Your task to perform on an android device: visit the assistant section in the google photos Image 0: 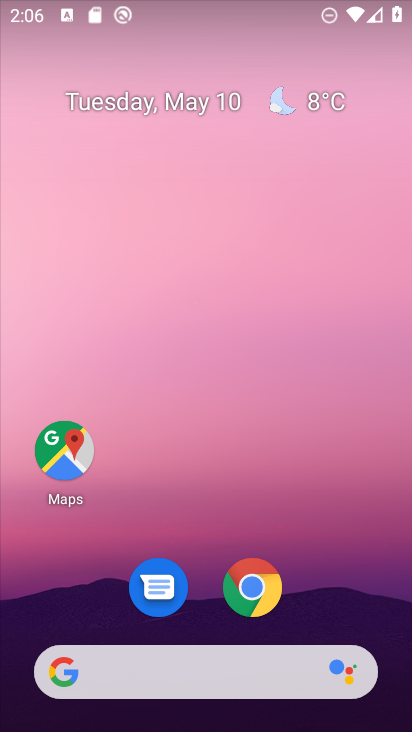
Step 0: drag from (398, 678) to (336, 320)
Your task to perform on an android device: visit the assistant section in the google photos Image 1: 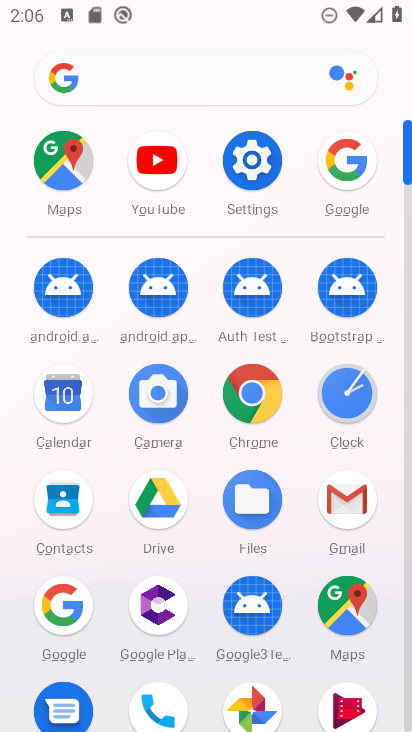
Step 1: click (241, 707)
Your task to perform on an android device: visit the assistant section in the google photos Image 2: 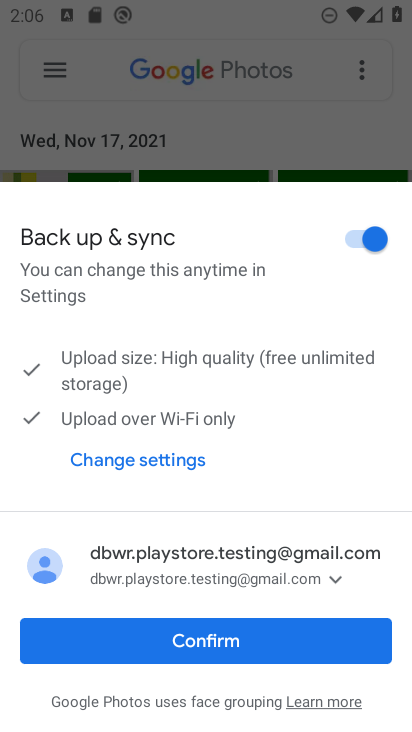
Step 2: click (264, 645)
Your task to perform on an android device: visit the assistant section in the google photos Image 3: 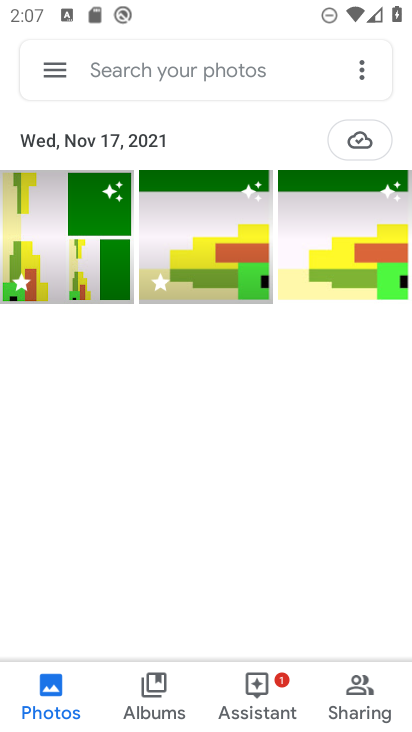
Step 3: click (246, 690)
Your task to perform on an android device: visit the assistant section in the google photos Image 4: 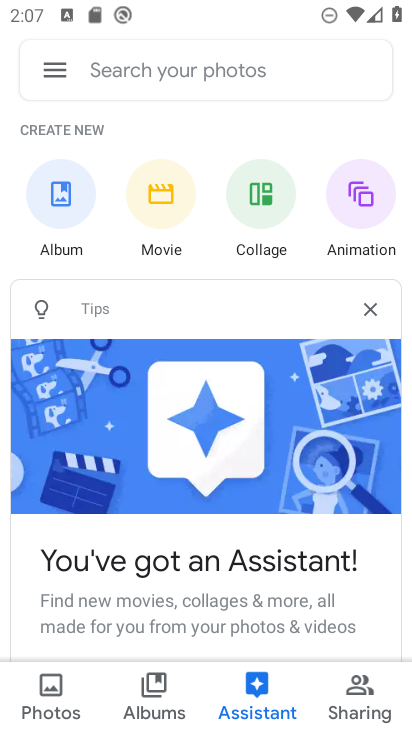
Step 4: task complete